Your task to perform on an android device: Open the phone app and click the voicemail tab. Image 0: 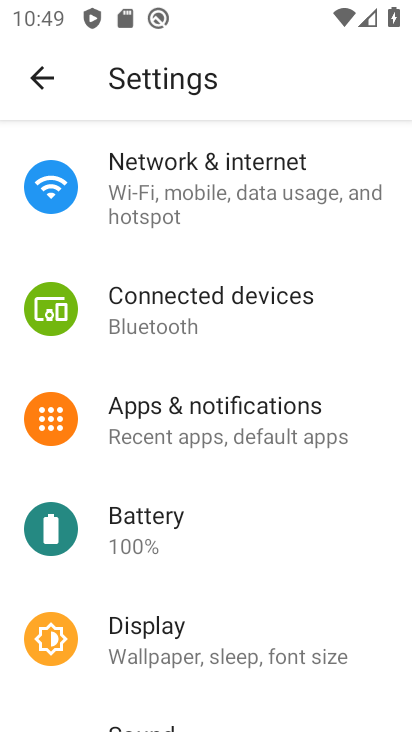
Step 0: press home button
Your task to perform on an android device: Open the phone app and click the voicemail tab. Image 1: 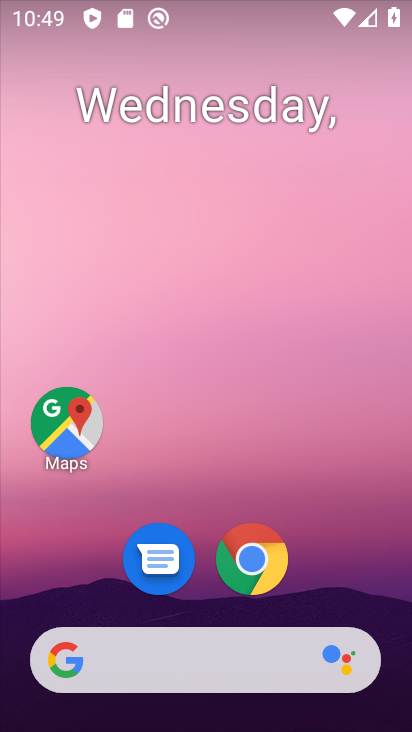
Step 1: drag from (303, 377) to (261, 83)
Your task to perform on an android device: Open the phone app and click the voicemail tab. Image 2: 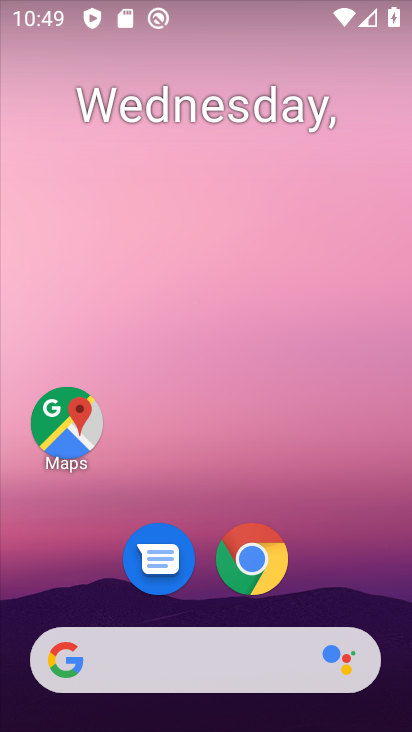
Step 2: drag from (375, 572) to (382, 7)
Your task to perform on an android device: Open the phone app and click the voicemail tab. Image 3: 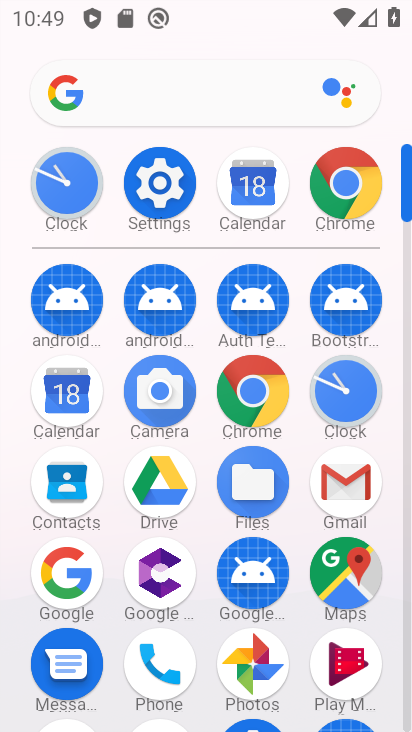
Step 3: drag from (387, 579) to (345, 44)
Your task to perform on an android device: Open the phone app and click the voicemail tab. Image 4: 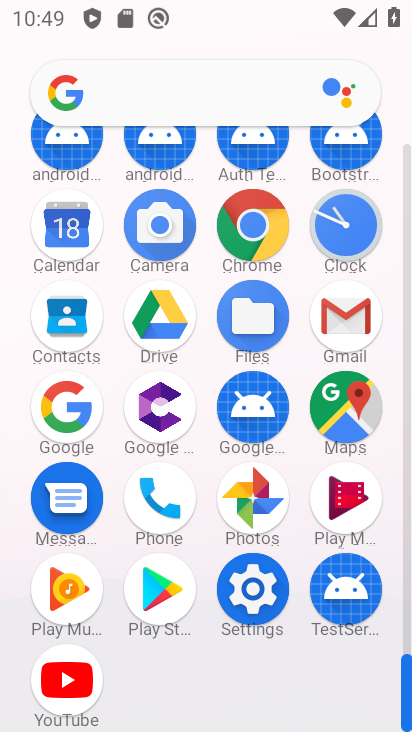
Step 4: click (157, 494)
Your task to perform on an android device: Open the phone app and click the voicemail tab. Image 5: 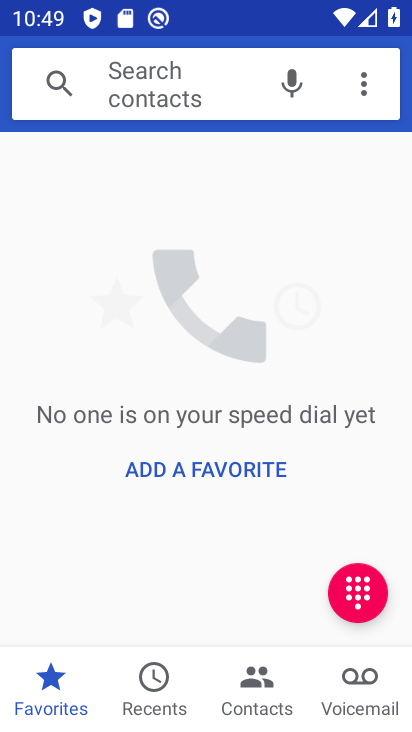
Step 5: click (364, 716)
Your task to perform on an android device: Open the phone app and click the voicemail tab. Image 6: 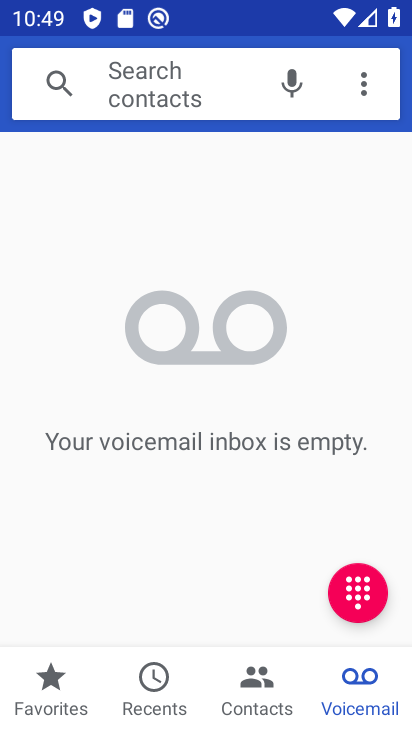
Step 6: task complete